Your task to perform on an android device: Open accessibility settings Image 0: 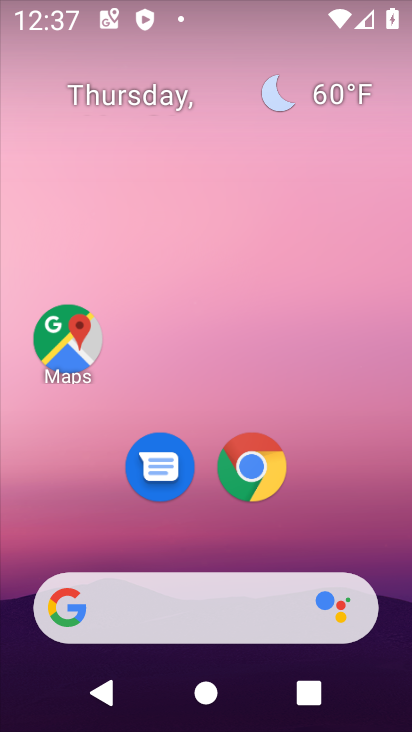
Step 0: drag from (265, 559) to (283, 96)
Your task to perform on an android device: Open accessibility settings Image 1: 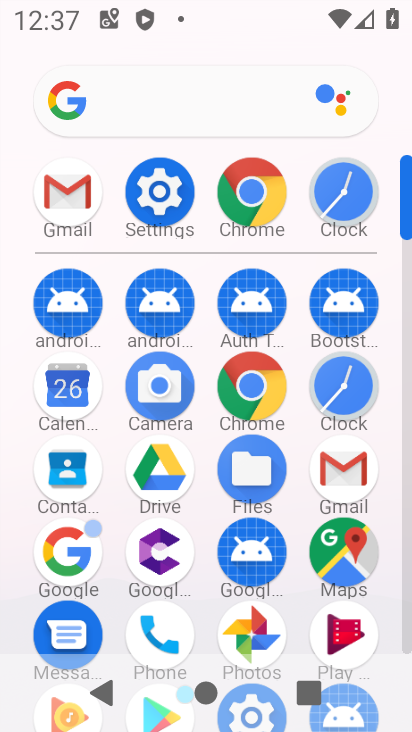
Step 1: click (169, 209)
Your task to perform on an android device: Open accessibility settings Image 2: 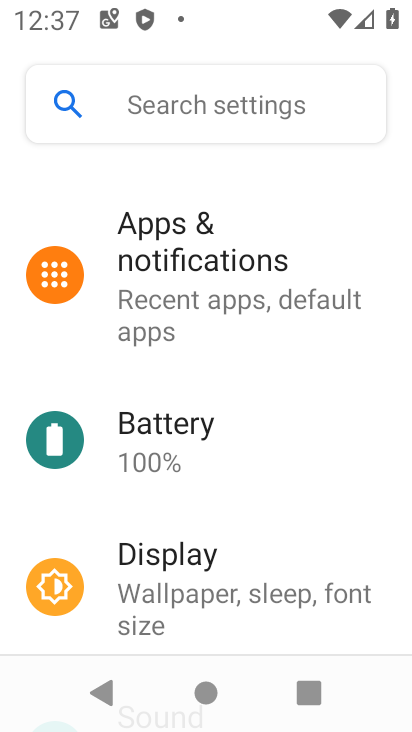
Step 2: drag from (242, 267) to (238, 455)
Your task to perform on an android device: Open accessibility settings Image 3: 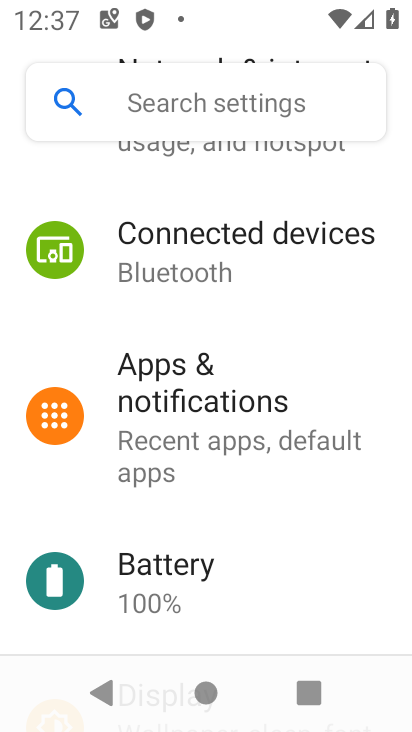
Step 3: drag from (222, 92) to (257, 47)
Your task to perform on an android device: Open accessibility settings Image 4: 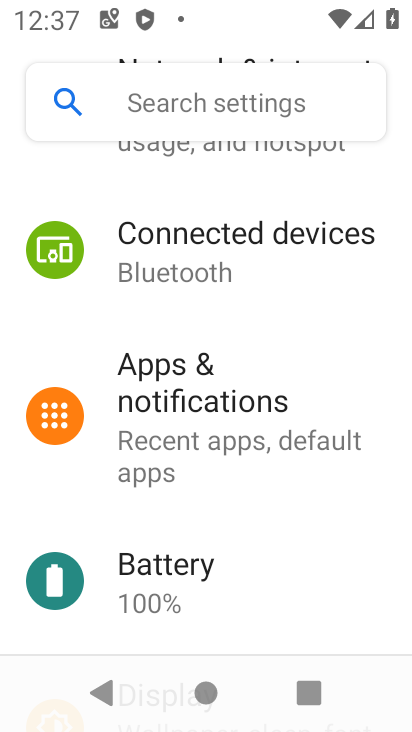
Step 4: drag from (152, 573) to (270, 78)
Your task to perform on an android device: Open accessibility settings Image 5: 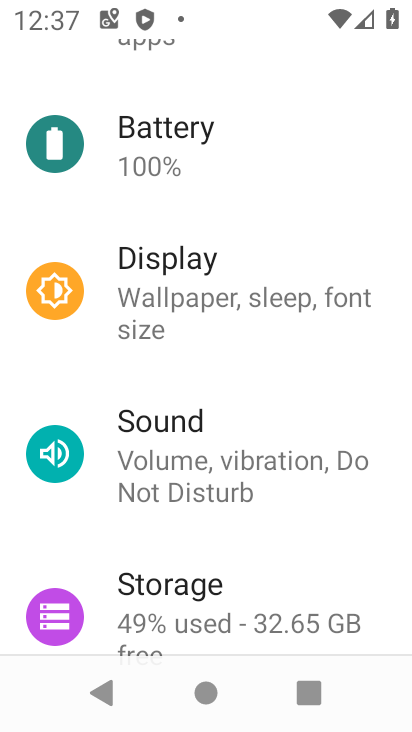
Step 5: drag from (226, 547) to (313, 25)
Your task to perform on an android device: Open accessibility settings Image 6: 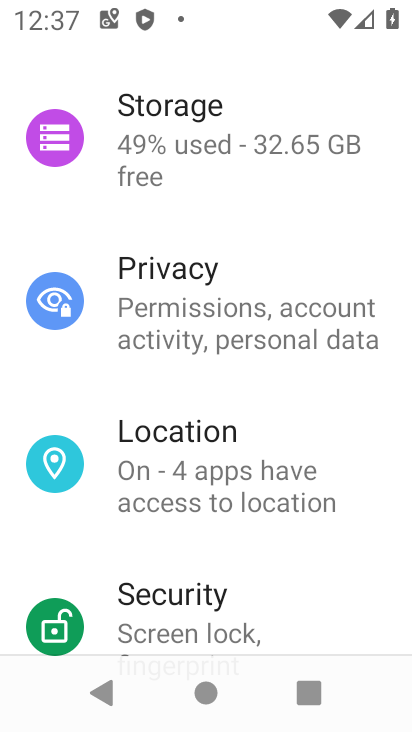
Step 6: drag from (263, 512) to (347, 15)
Your task to perform on an android device: Open accessibility settings Image 7: 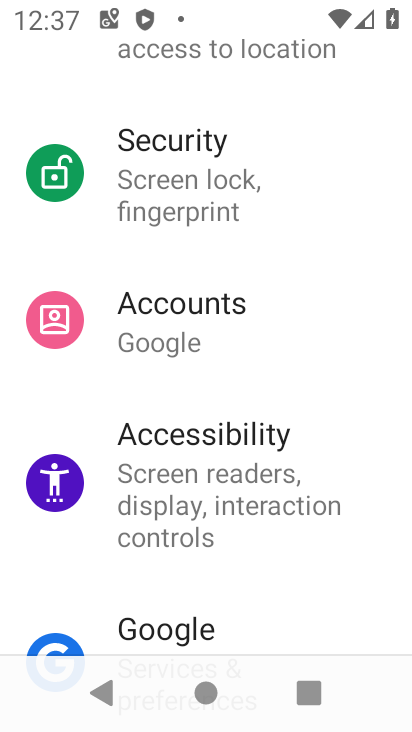
Step 7: click (192, 478)
Your task to perform on an android device: Open accessibility settings Image 8: 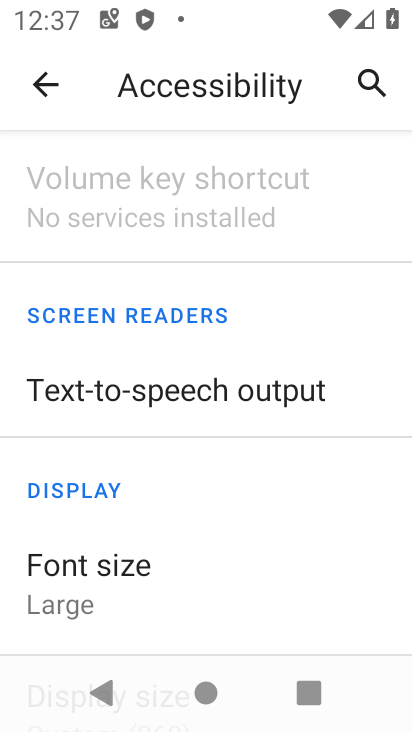
Step 8: task complete